Your task to perform on an android device: turn off javascript in the chrome app Image 0: 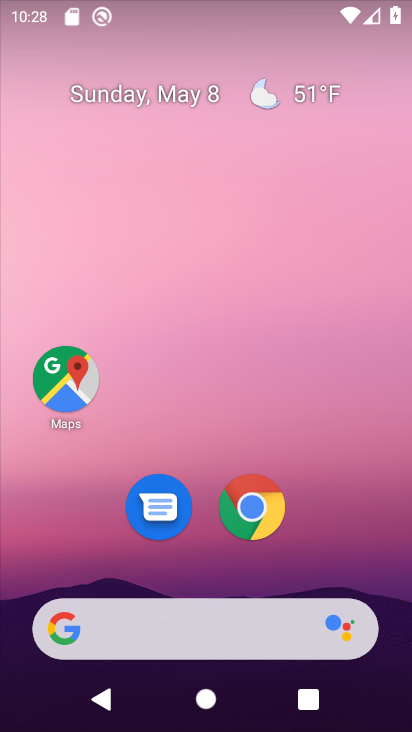
Step 0: drag from (219, 560) to (262, 8)
Your task to perform on an android device: turn off javascript in the chrome app Image 1: 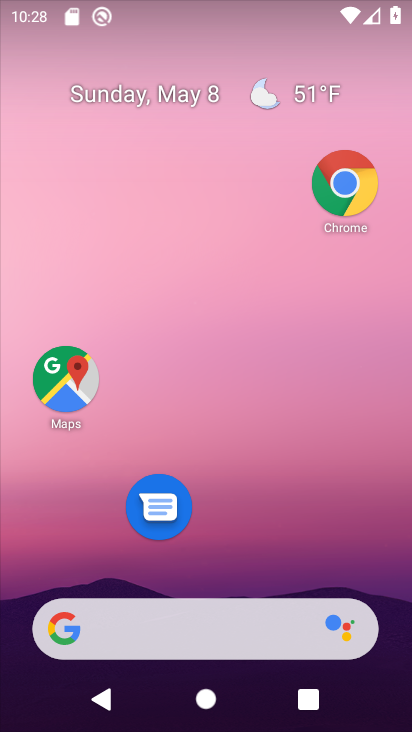
Step 1: drag from (246, 517) to (252, 97)
Your task to perform on an android device: turn off javascript in the chrome app Image 2: 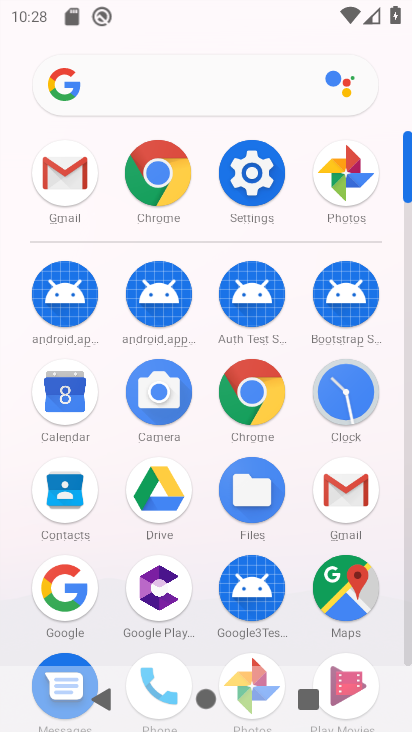
Step 2: click (154, 167)
Your task to perform on an android device: turn off javascript in the chrome app Image 3: 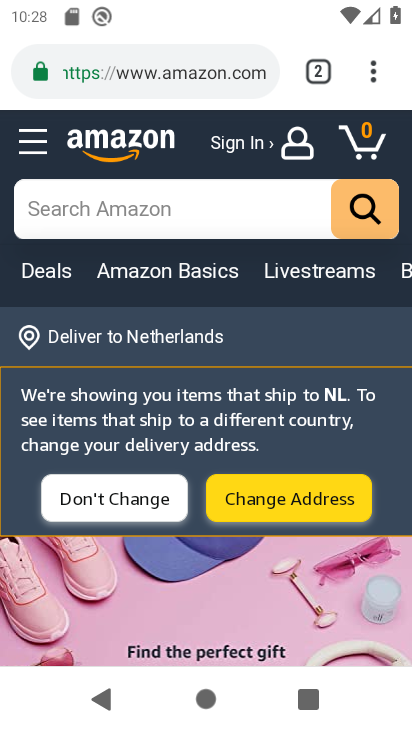
Step 3: click (370, 76)
Your task to perform on an android device: turn off javascript in the chrome app Image 4: 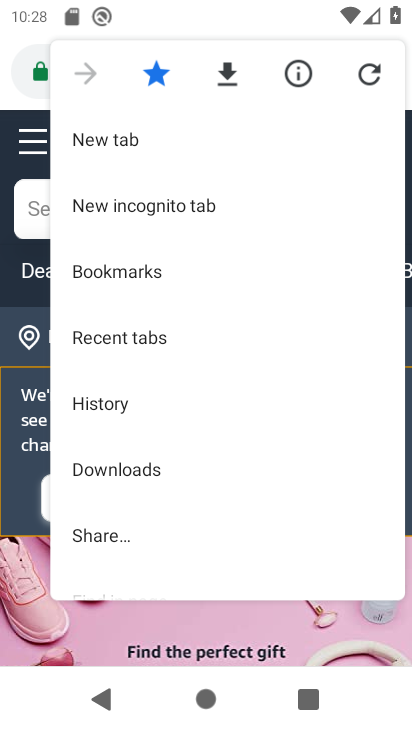
Step 4: drag from (180, 465) to (218, 77)
Your task to perform on an android device: turn off javascript in the chrome app Image 5: 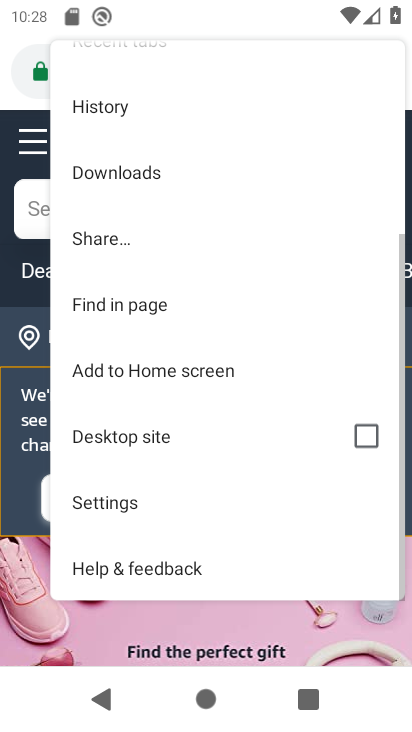
Step 5: click (153, 502)
Your task to perform on an android device: turn off javascript in the chrome app Image 6: 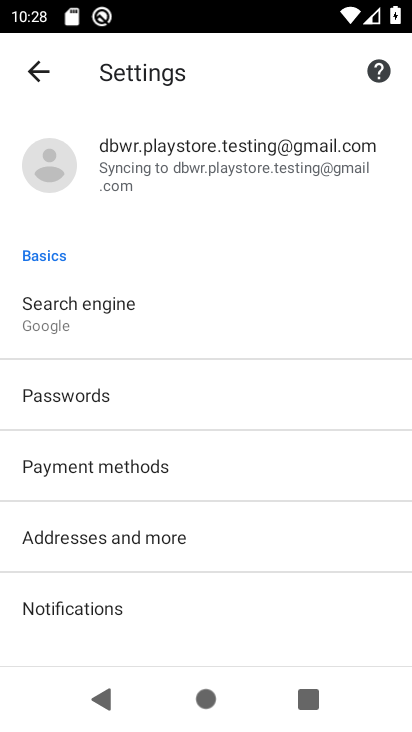
Step 6: drag from (177, 599) to (228, 77)
Your task to perform on an android device: turn off javascript in the chrome app Image 7: 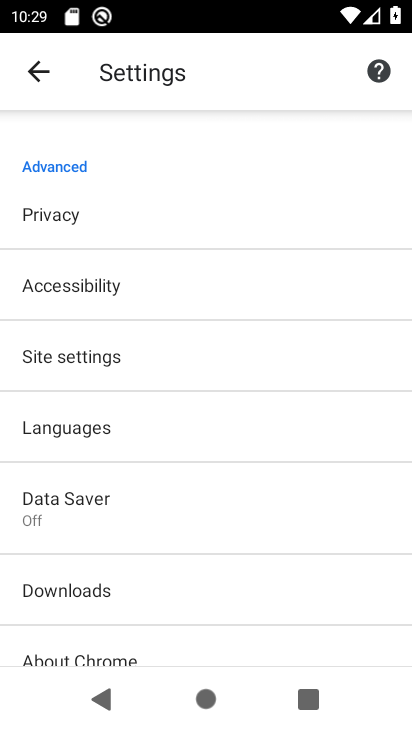
Step 7: click (137, 362)
Your task to perform on an android device: turn off javascript in the chrome app Image 8: 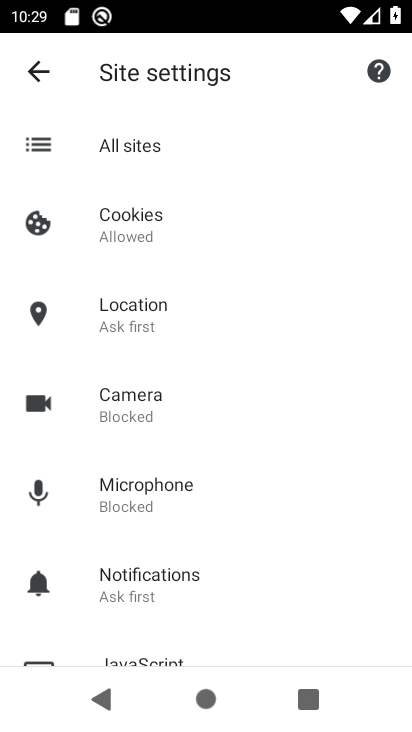
Step 8: click (201, 651)
Your task to perform on an android device: turn off javascript in the chrome app Image 9: 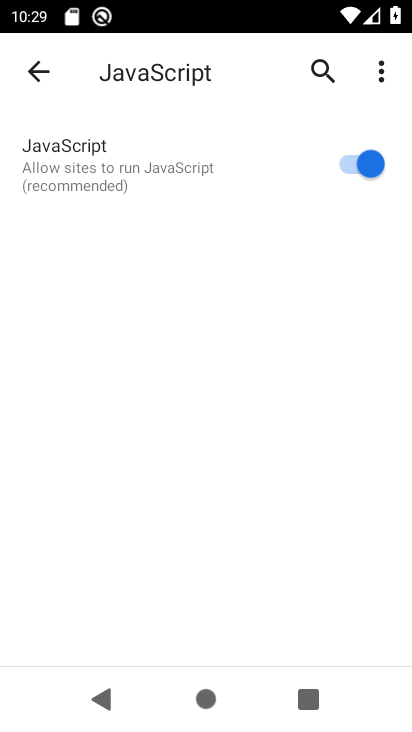
Step 9: click (368, 161)
Your task to perform on an android device: turn off javascript in the chrome app Image 10: 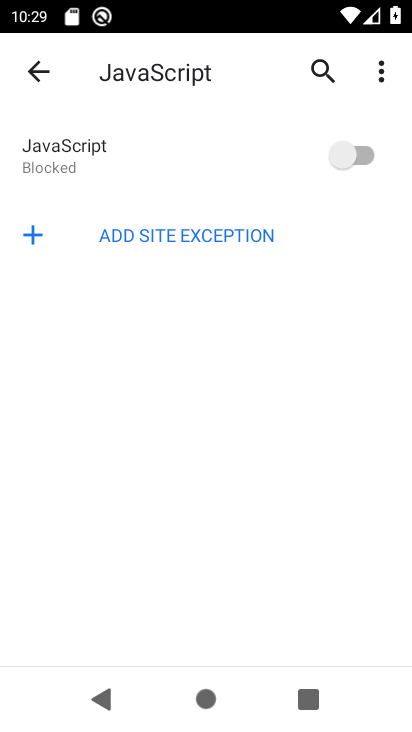
Step 10: task complete